Your task to perform on an android device: Open Google Maps Image 0: 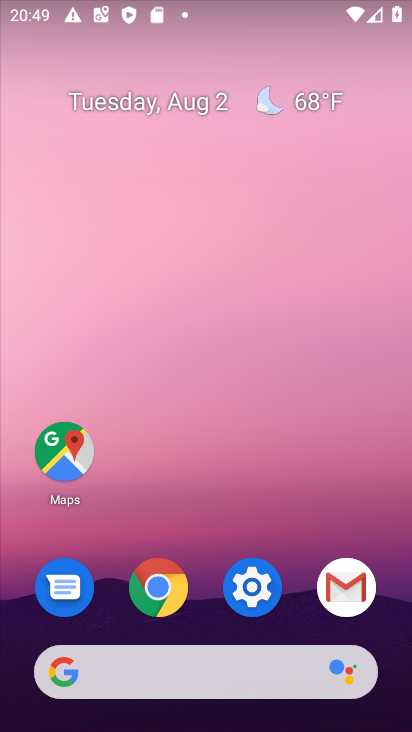
Step 0: click (56, 439)
Your task to perform on an android device: Open Google Maps Image 1: 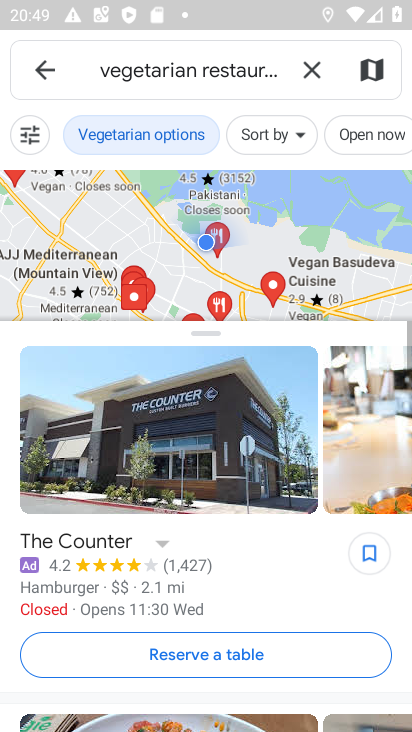
Step 1: click (48, 62)
Your task to perform on an android device: Open Google Maps Image 2: 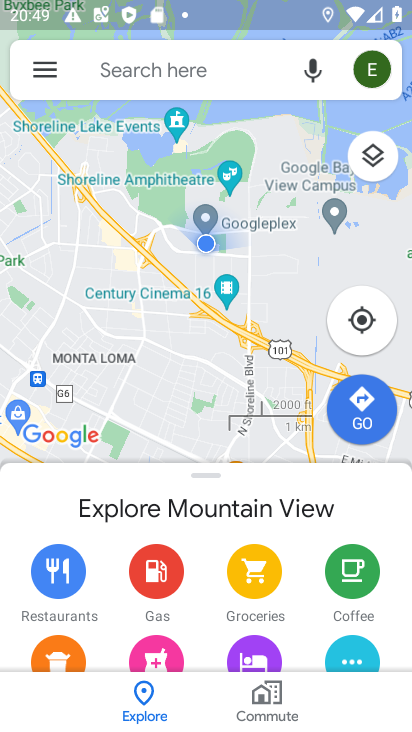
Step 2: click (351, 324)
Your task to perform on an android device: Open Google Maps Image 3: 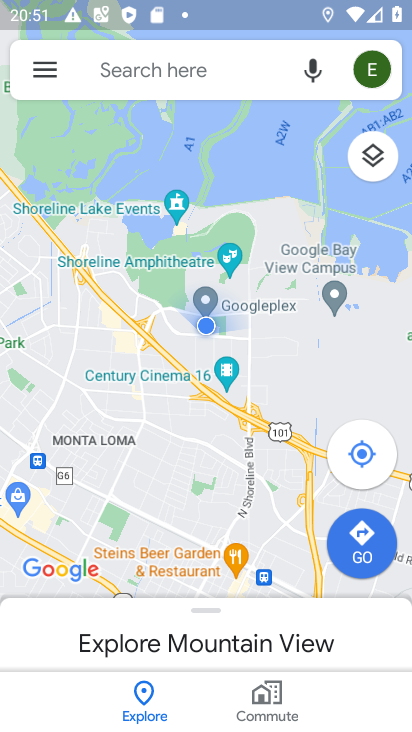
Step 3: task complete